Your task to perform on an android device: turn on bluetooth scan Image 0: 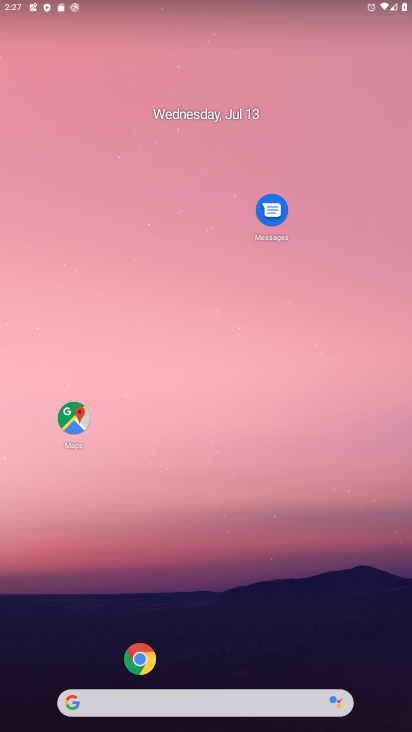
Step 0: drag from (276, 202) to (295, 104)
Your task to perform on an android device: turn on bluetooth scan Image 1: 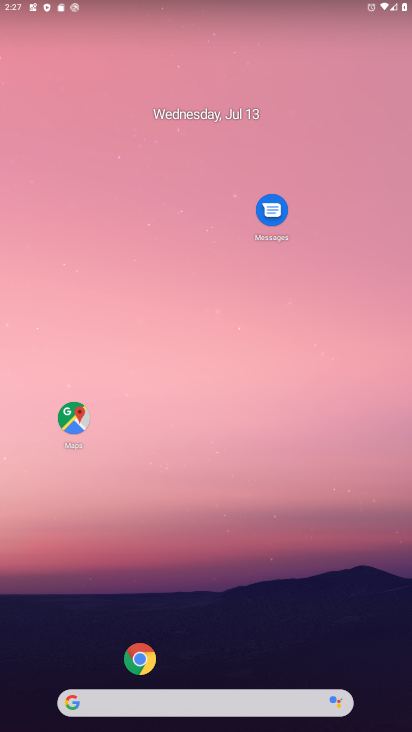
Step 1: drag from (16, 709) to (234, 0)
Your task to perform on an android device: turn on bluetooth scan Image 2: 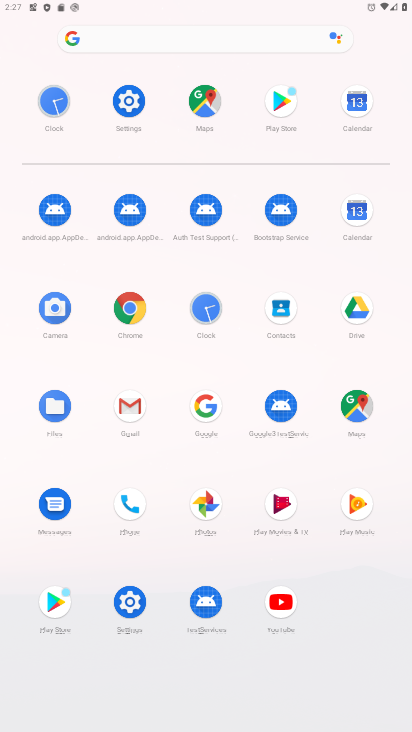
Step 2: click (123, 607)
Your task to perform on an android device: turn on bluetooth scan Image 3: 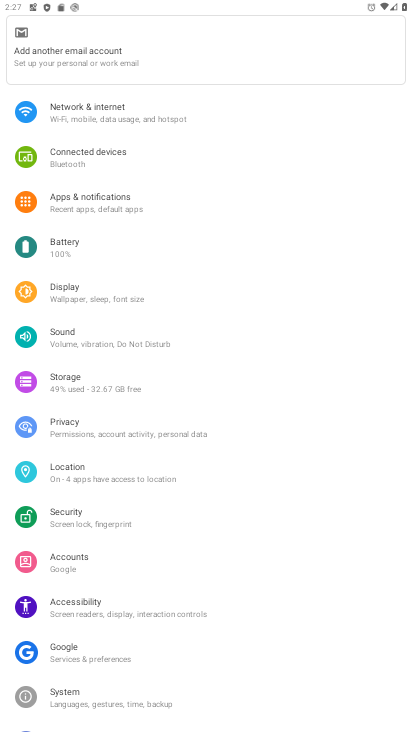
Step 3: click (123, 153)
Your task to perform on an android device: turn on bluetooth scan Image 4: 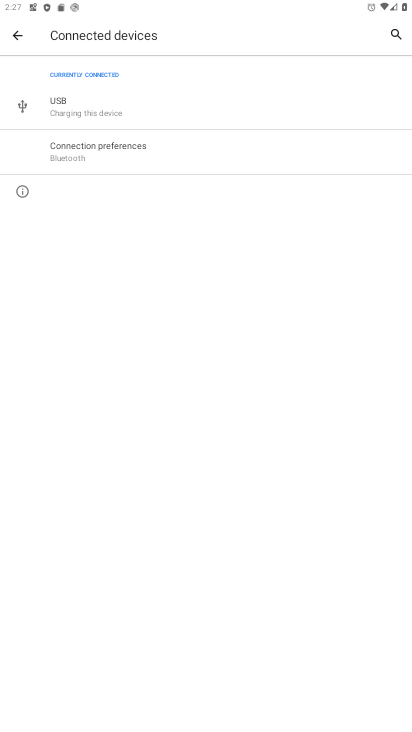
Step 4: click (114, 151)
Your task to perform on an android device: turn on bluetooth scan Image 5: 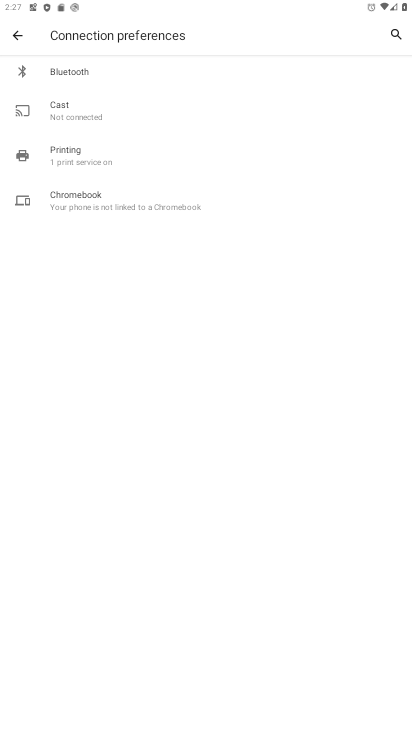
Step 5: click (88, 72)
Your task to perform on an android device: turn on bluetooth scan Image 6: 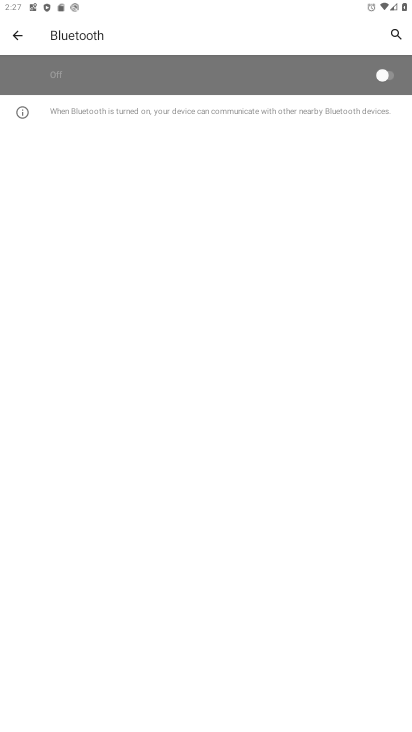
Step 6: task complete